Your task to perform on an android device: turn on translation in the chrome app Image 0: 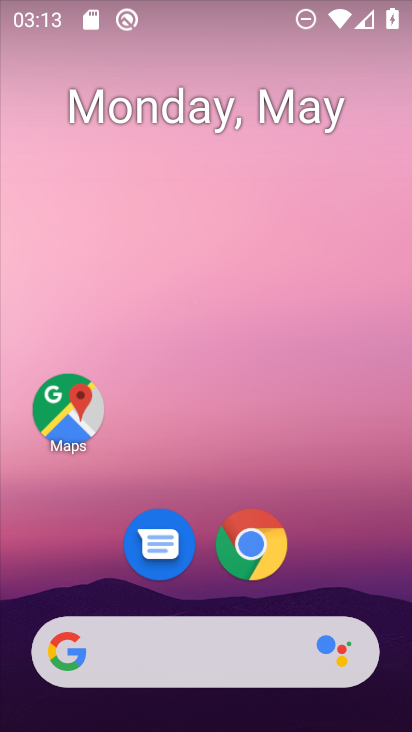
Step 0: drag from (363, 598) to (364, 244)
Your task to perform on an android device: turn on translation in the chrome app Image 1: 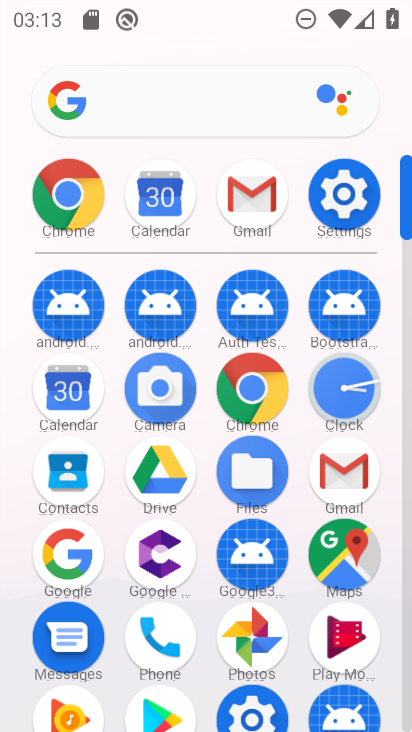
Step 1: click (261, 395)
Your task to perform on an android device: turn on translation in the chrome app Image 2: 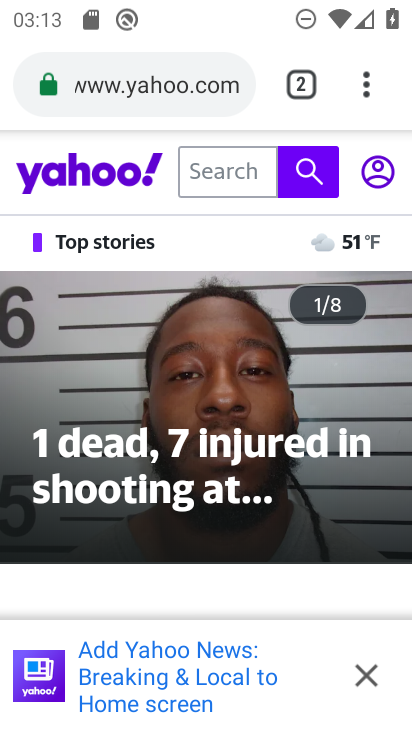
Step 2: click (366, 96)
Your task to perform on an android device: turn on translation in the chrome app Image 3: 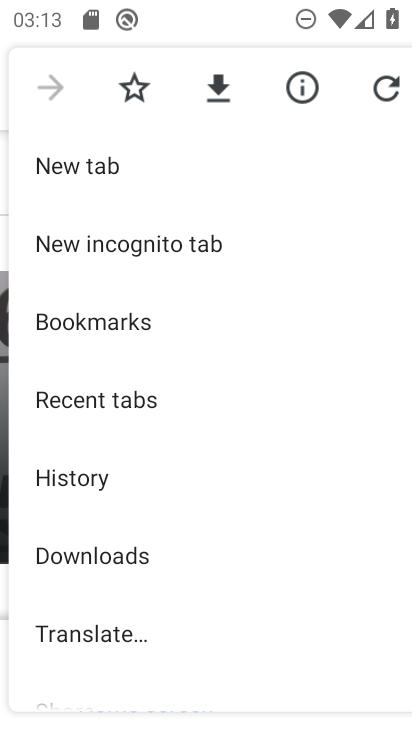
Step 3: drag from (324, 464) to (325, 366)
Your task to perform on an android device: turn on translation in the chrome app Image 4: 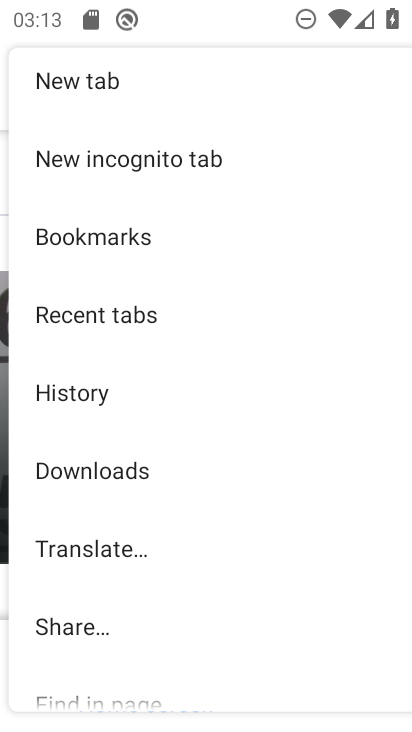
Step 4: drag from (296, 524) to (290, 373)
Your task to perform on an android device: turn on translation in the chrome app Image 5: 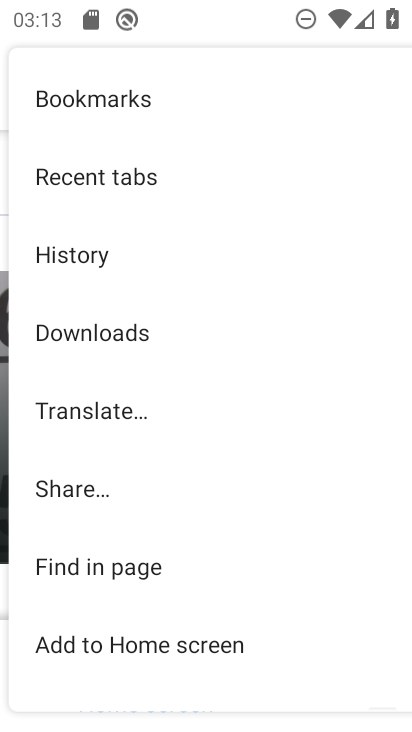
Step 5: drag from (296, 537) to (300, 351)
Your task to perform on an android device: turn on translation in the chrome app Image 6: 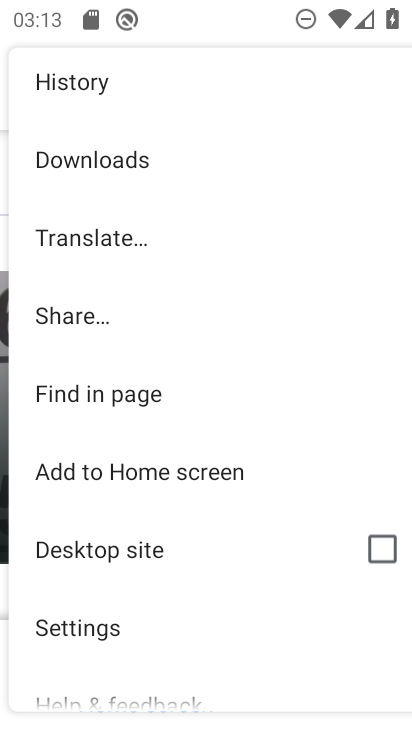
Step 6: drag from (280, 584) to (280, 454)
Your task to perform on an android device: turn on translation in the chrome app Image 7: 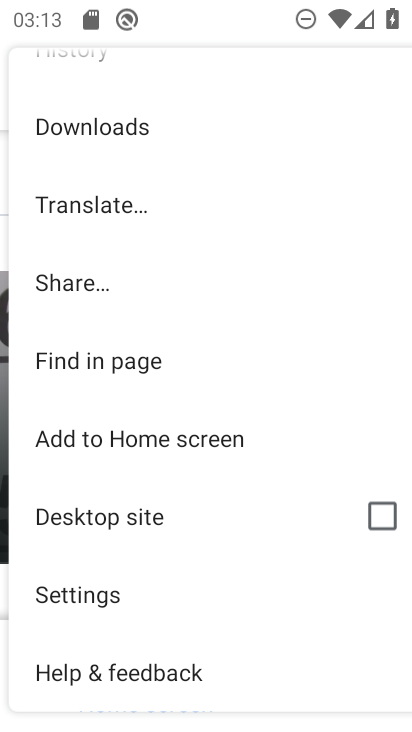
Step 7: click (102, 605)
Your task to perform on an android device: turn on translation in the chrome app Image 8: 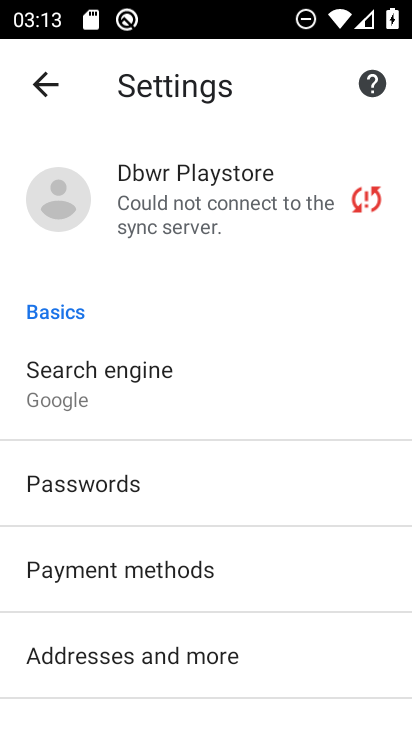
Step 8: drag from (265, 561) to (272, 404)
Your task to perform on an android device: turn on translation in the chrome app Image 9: 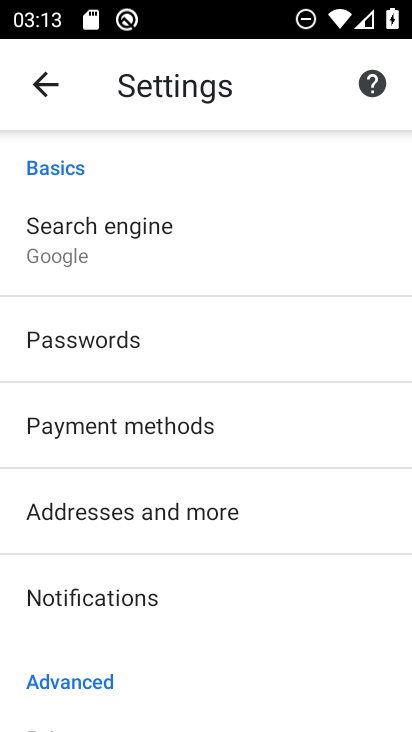
Step 9: drag from (296, 592) to (296, 454)
Your task to perform on an android device: turn on translation in the chrome app Image 10: 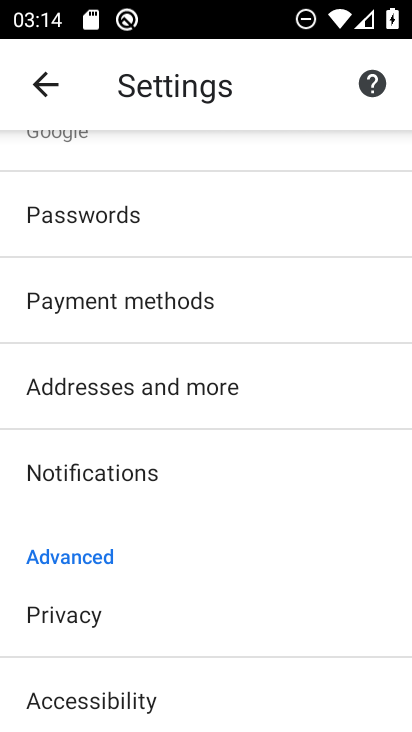
Step 10: drag from (325, 523) to (340, 306)
Your task to perform on an android device: turn on translation in the chrome app Image 11: 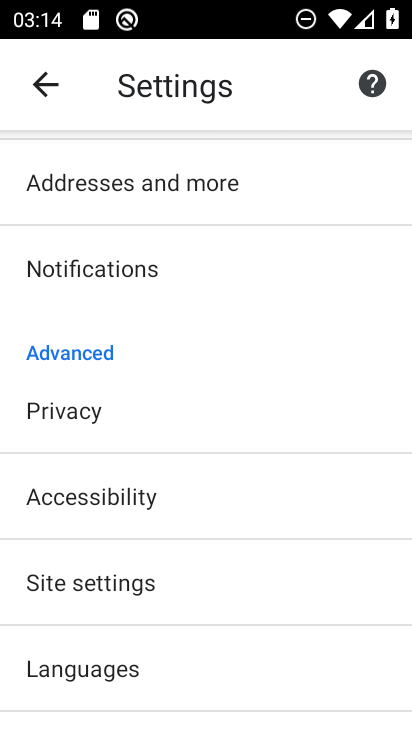
Step 11: drag from (298, 522) to (304, 390)
Your task to perform on an android device: turn on translation in the chrome app Image 12: 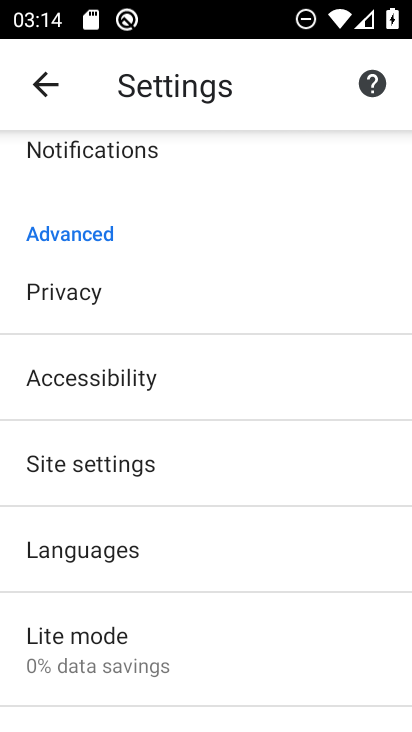
Step 12: drag from (282, 552) to (278, 394)
Your task to perform on an android device: turn on translation in the chrome app Image 13: 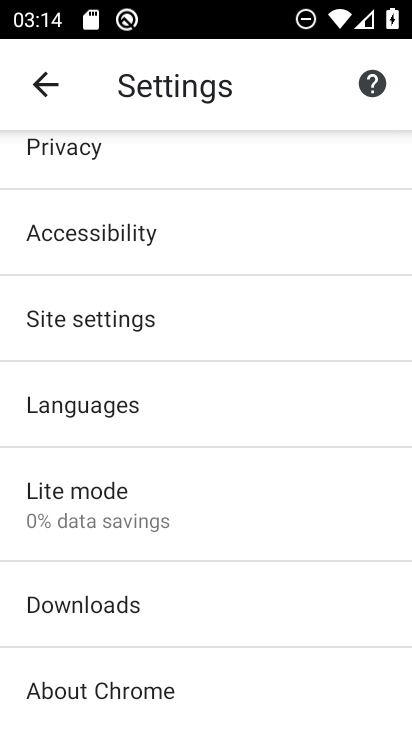
Step 13: click (257, 417)
Your task to perform on an android device: turn on translation in the chrome app Image 14: 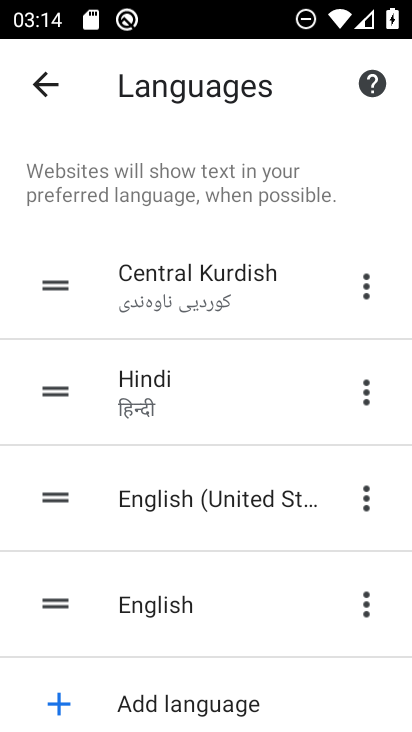
Step 14: task complete